Your task to perform on an android device: Open Reddit.com Image 0: 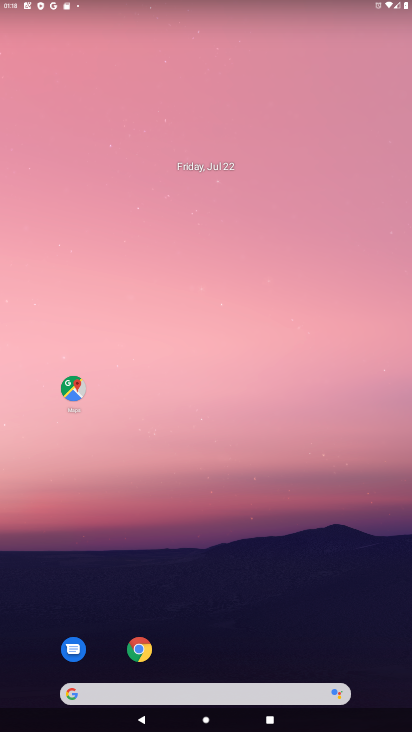
Step 0: drag from (270, 613) to (262, 68)
Your task to perform on an android device: Open Reddit.com Image 1: 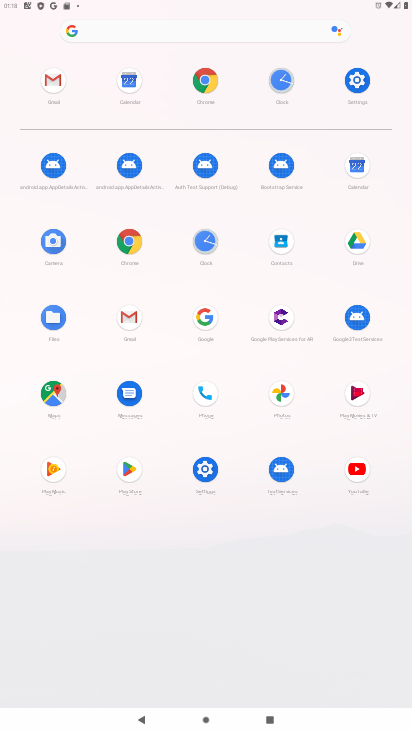
Step 1: click (208, 73)
Your task to perform on an android device: Open Reddit.com Image 2: 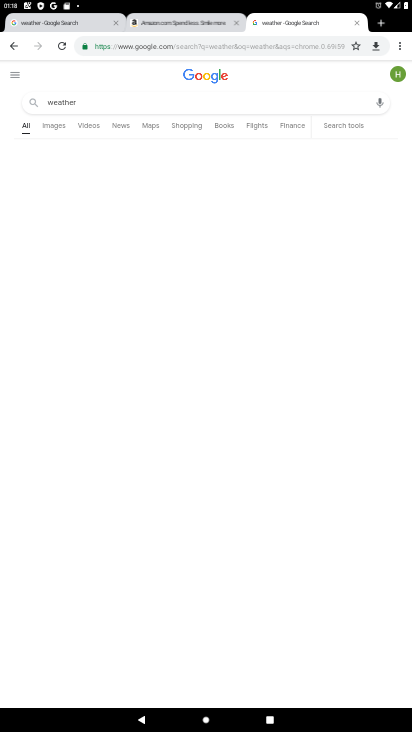
Step 2: click (246, 41)
Your task to perform on an android device: Open Reddit.com Image 3: 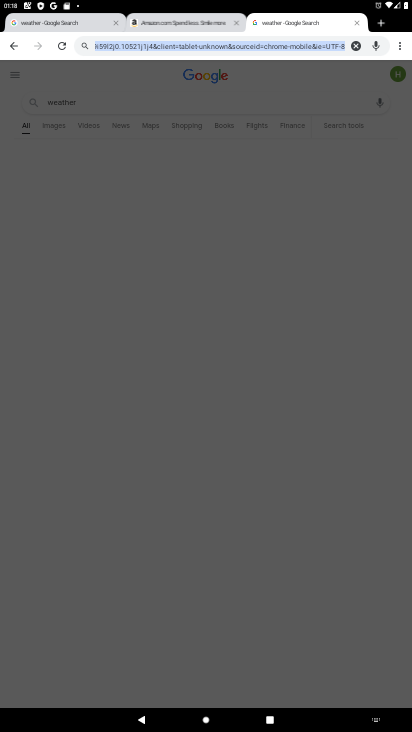
Step 3: type "reddit.com"
Your task to perform on an android device: Open Reddit.com Image 4: 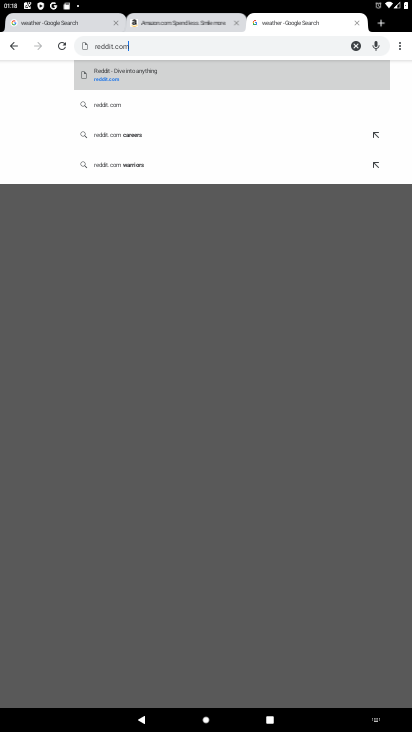
Step 4: click (138, 82)
Your task to perform on an android device: Open Reddit.com Image 5: 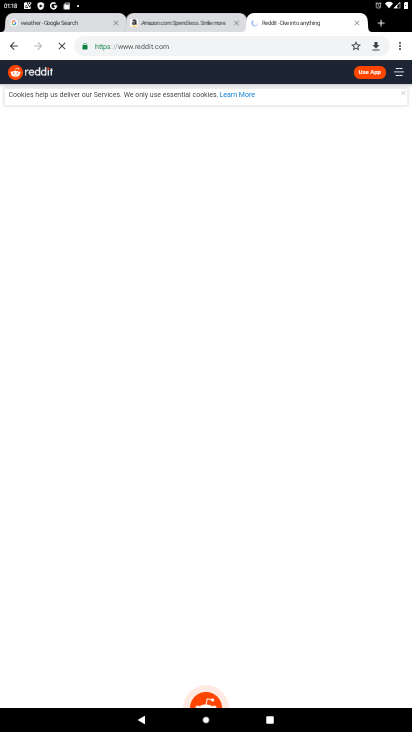
Step 5: task complete